Your task to perform on an android device: open a new tab in the chrome app Image 0: 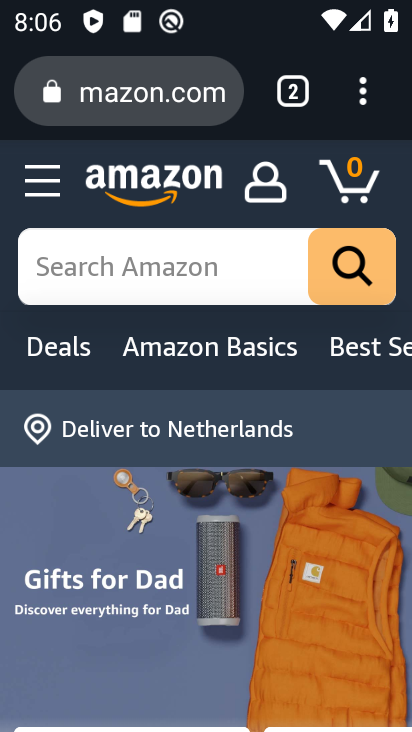
Step 0: press home button
Your task to perform on an android device: open a new tab in the chrome app Image 1: 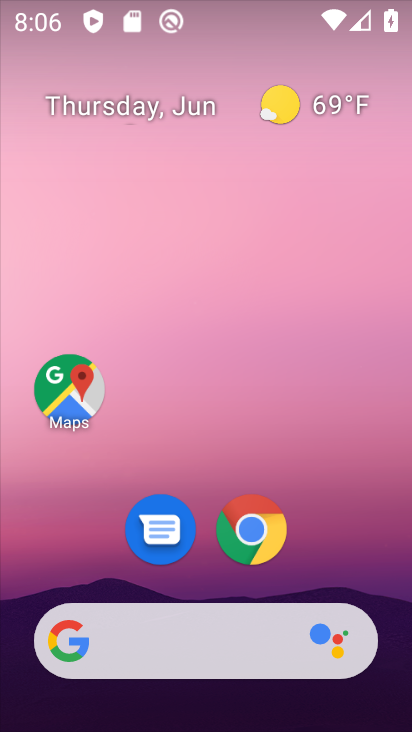
Step 1: click (259, 557)
Your task to perform on an android device: open a new tab in the chrome app Image 2: 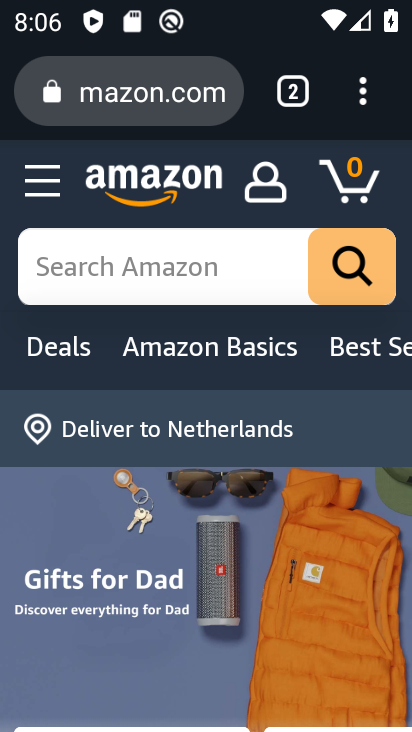
Step 2: click (287, 96)
Your task to perform on an android device: open a new tab in the chrome app Image 3: 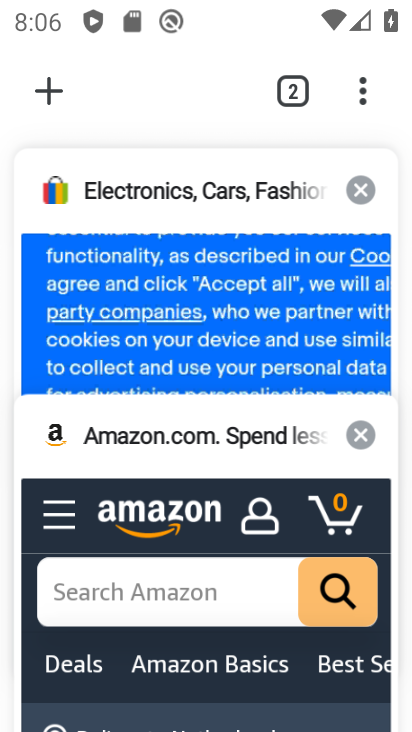
Step 3: click (43, 87)
Your task to perform on an android device: open a new tab in the chrome app Image 4: 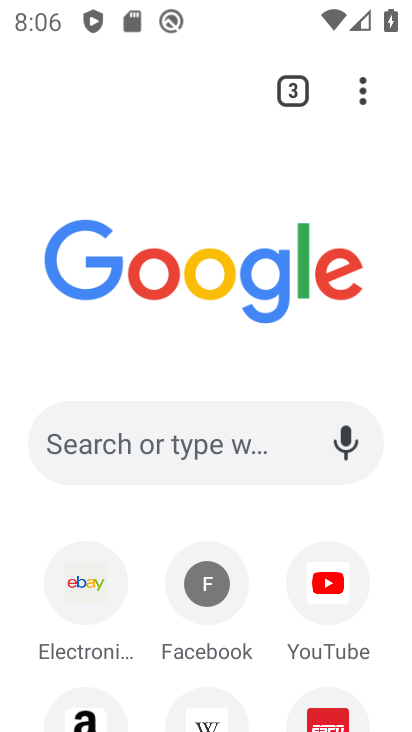
Step 4: task complete